Your task to perform on an android device: Open maps Image 0: 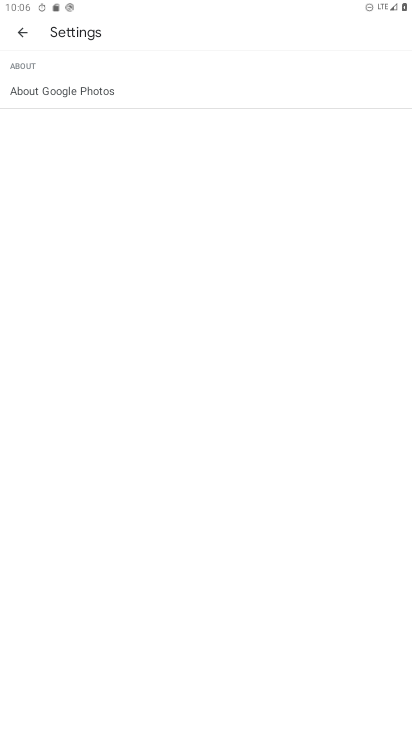
Step 0: drag from (220, 720) to (215, 157)
Your task to perform on an android device: Open maps Image 1: 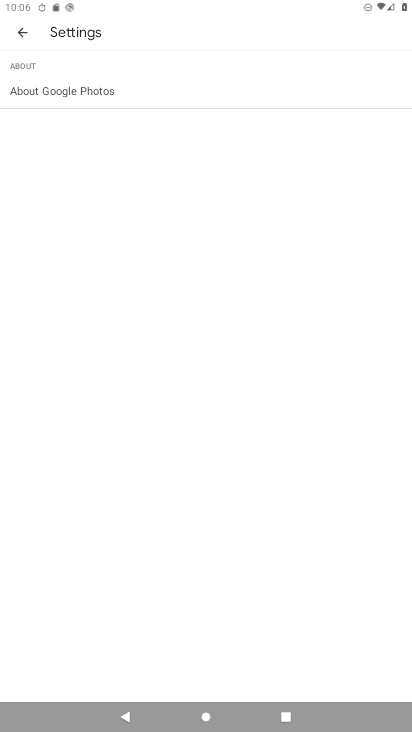
Step 1: press home button
Your task to perform on an android device: Open maps Image 2: 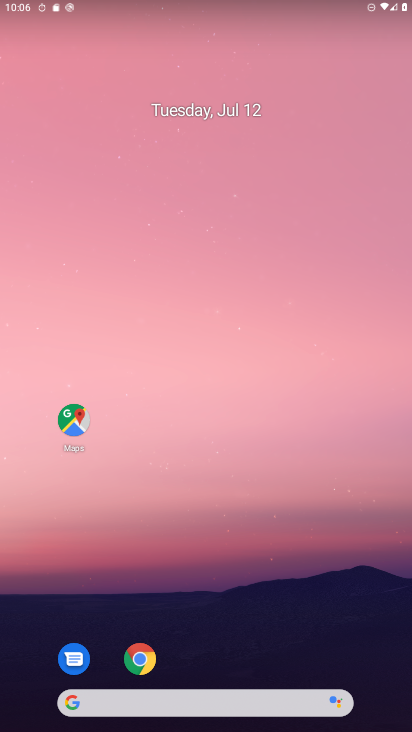
Step 2: drag from (223, 727) to (242, 107)
Your task to perform on an android device: Open maps Image 3: 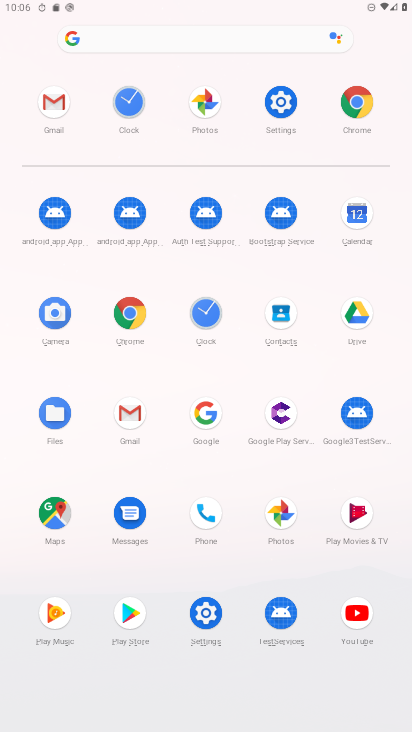
Step 3: click (56, 517)
Your task to perform on an android device: Open maps Image 4: 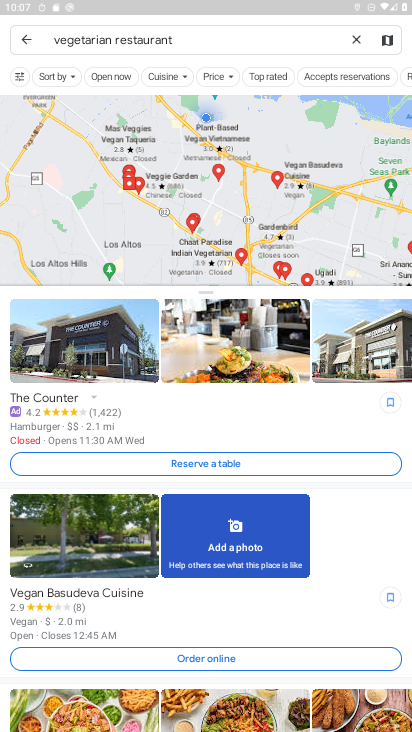
Step 4: task complete